Your task to perform on an android device: toggle notifications settings in the gmail app Image 0: 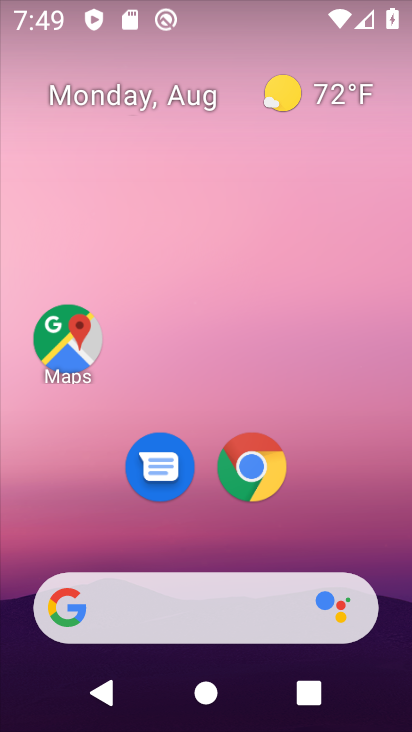
Step 0: press home button
Your task to perform on an android device: toggle notifications settings in the gmail app Image 1: 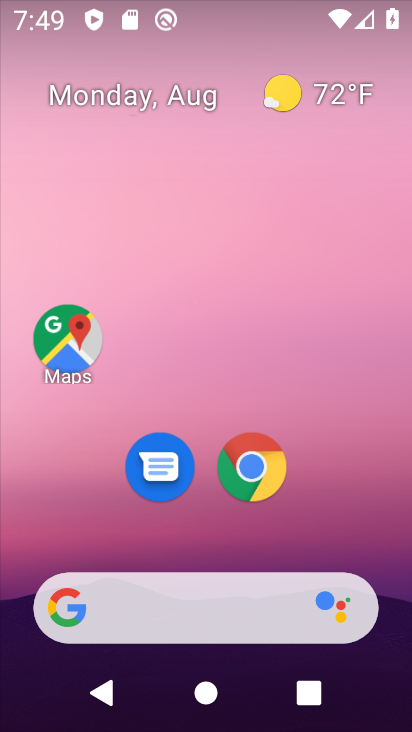
Step 1: drag from (343, 532) to (377, 134)
Your task to perform on an android device: toggle notifications settings in the gmail app Image 2: 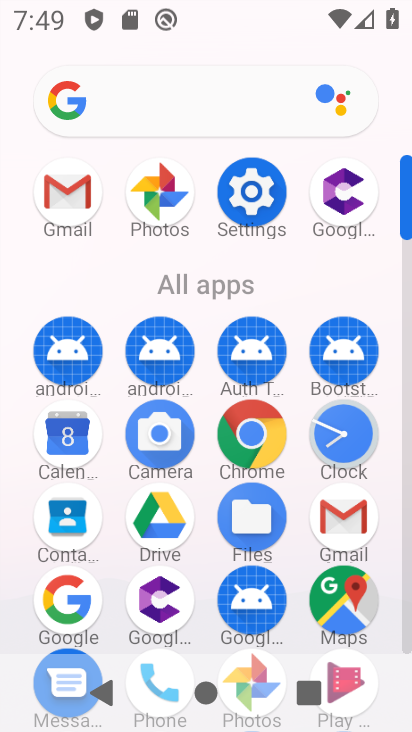
Step 2: click (342, 522)
Your task to perform on an android device: toggle notifications settings in the gmail app Image 3: 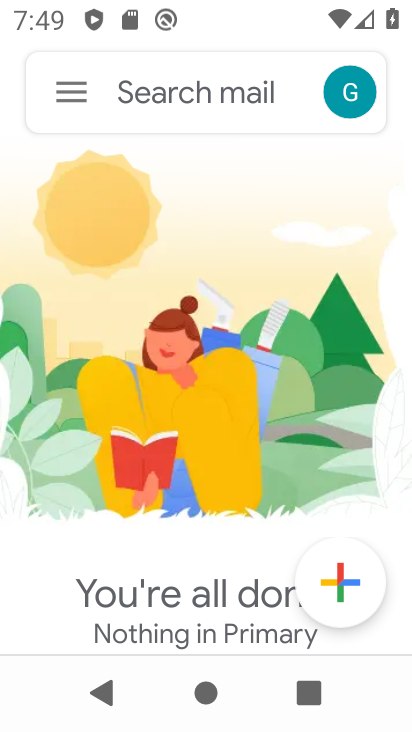
Step 3: click (67, 82)
Your task to perform on an android device: toggle notifications settings in the gmail app Image 4: 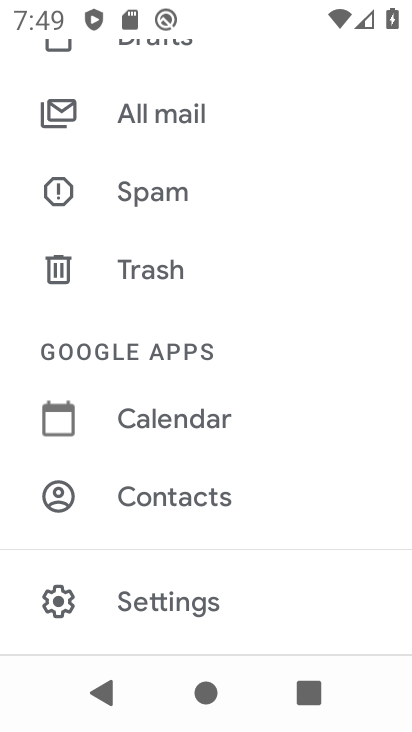
Step 4: click (194, 606)
Your task to perform on an android device: toggle notifications settings in the gmail app Image 5: 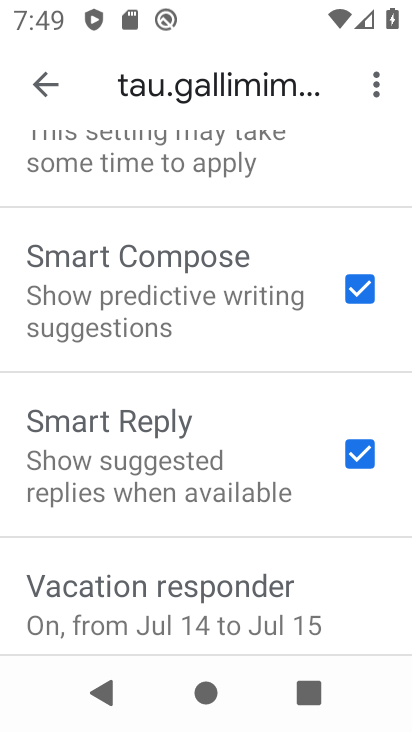
Step 5: drag from (253, 353) to (261, 411)
Your task to perform on an android device: toggle notifications settings in the gmail app Image 6: 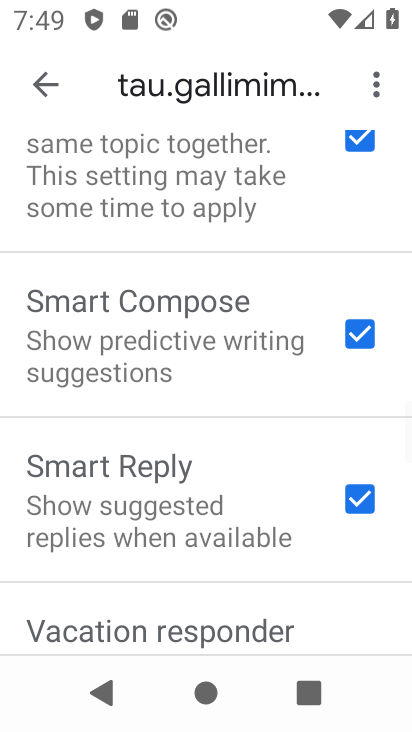
Step 6: drag from (325, 276) to (324, 369)
Your task to perform on an android device: toggle notifications settings in the gmail app Image 7: 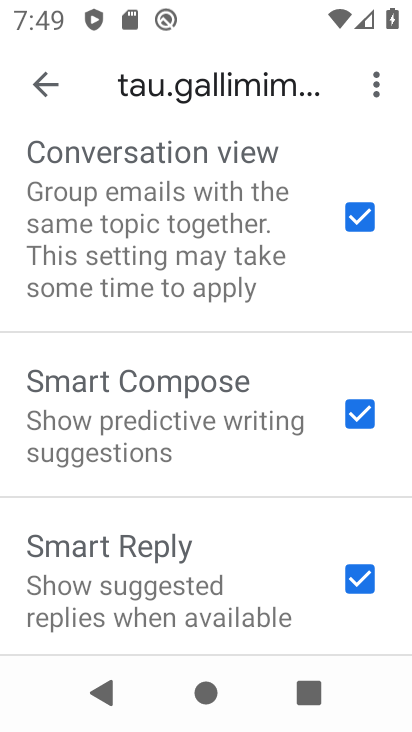
Step 7: drag from (313, 253) to (312, 340)
Your task to perform on an android device: toggle notifications settings in the gmail app Image 8: 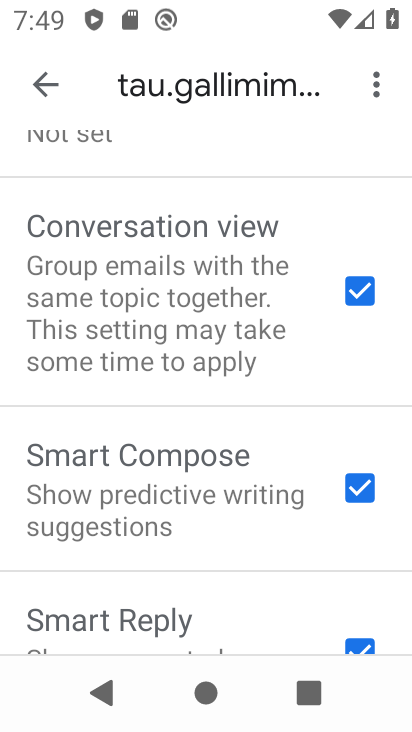
Step 8: drag from (297, 222) to (297, 329)
Your task to perform on an android device: toggle notifications settings in the gmail app Image 9: 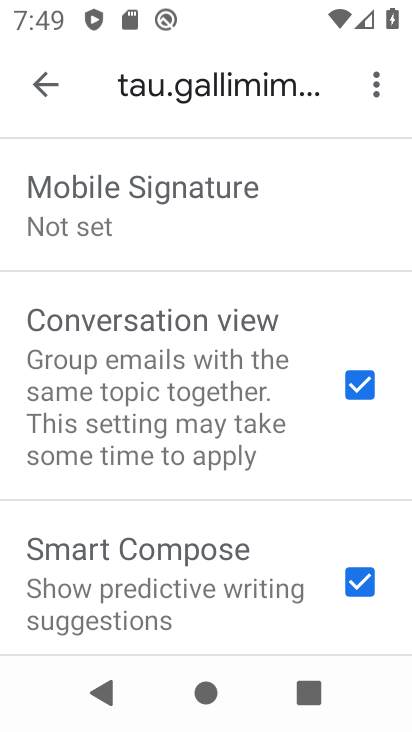
Step 9: drag from (309, 206) to (311, 313)
Your task to perform on an android device: toggle notifications settings in the gmail app Image 10: 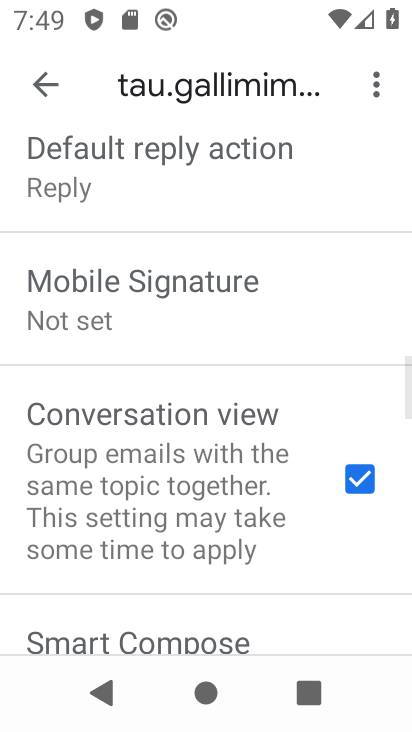
Step 10: drag from (313, 205) to (309, 310)
Your task to perform on an android device: toggle notifications settings in the gmail app Image 11: 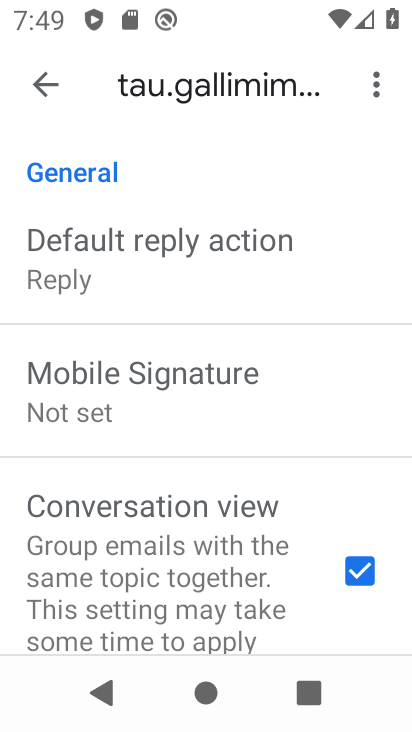
Step 11: drag from (309, 203) to (310, 292)
Your task to perform on an android device: toggle notifications settings in the gmail app Image 12: 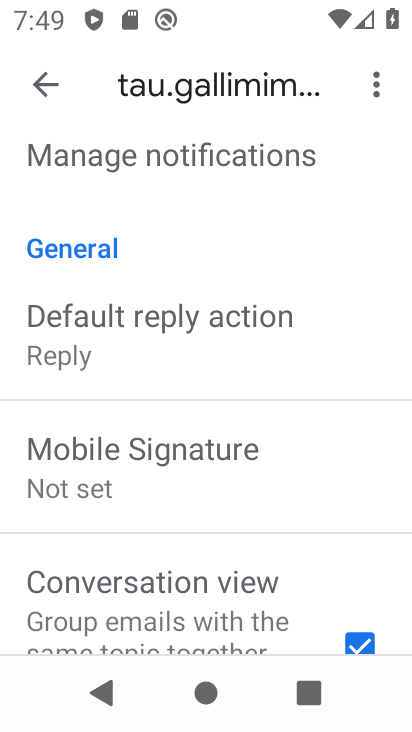
Step 12: drag from (321, 165) to (324, 318)
Your task to perform on an android device: toggle notifications settings in the gmail app Image 13: 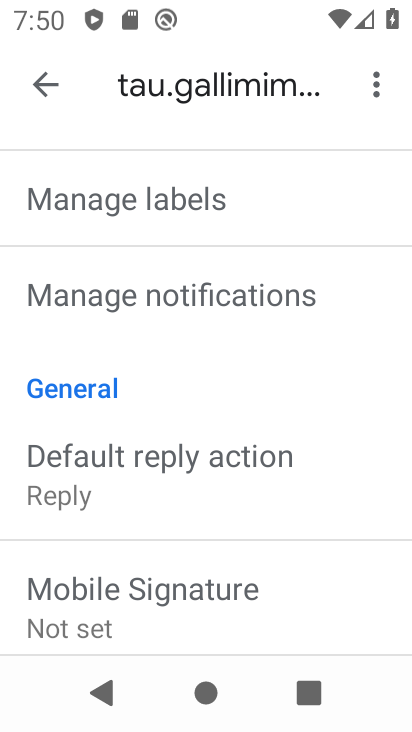
Step 13: click (324, 298)
Your task to perform on an android device: toggle notifications settings in the gmail app Image 14: 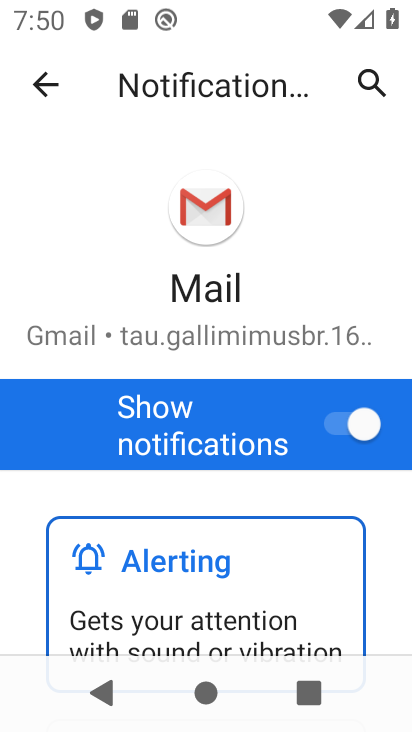
Step 14: click (362, 429)
Your task to perform on an android device: toggle notifications settings in the gmail app Image 15: 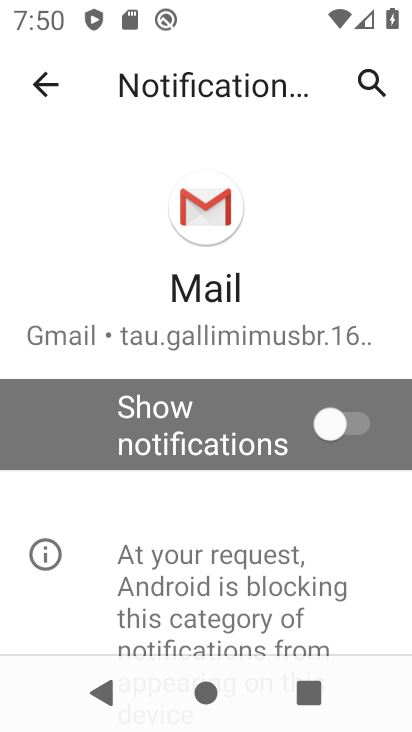
Step 15: task complete